Your task to perform on an android device: Go to sound settings Image 0: 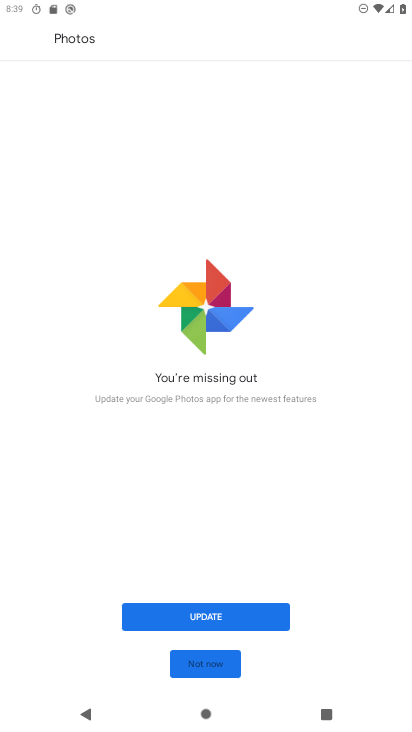
Step 0: press home button
Your task to perform on an android device: Go to sound settings Image 1: 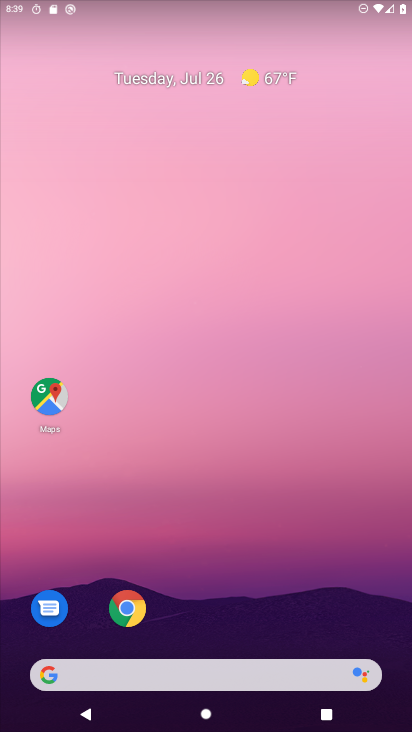
Step 1: drag from (196, 623) to (284, 116)
Your task to perform on an android device: Go to sound settings Image 2: 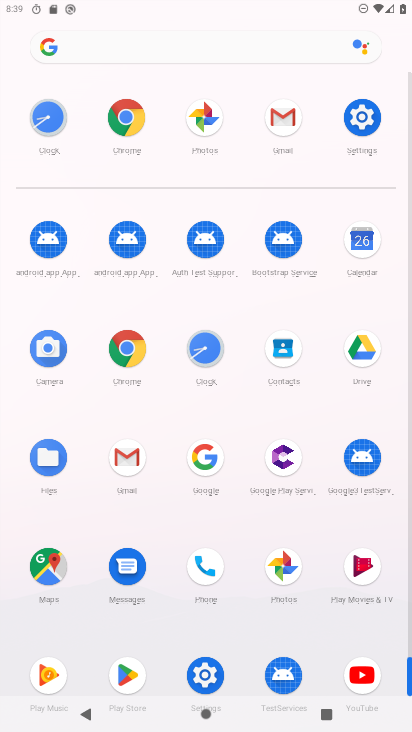
Step 2: click (207, 675)
Your task to perform on an android device: Go to sound settings Image 3: 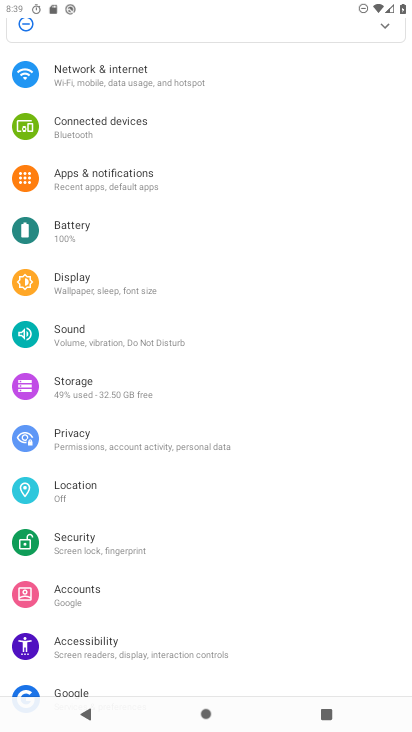
Step 3: click (134, 338)
Your task to perform on an android device: Go to sound settings Image 4: 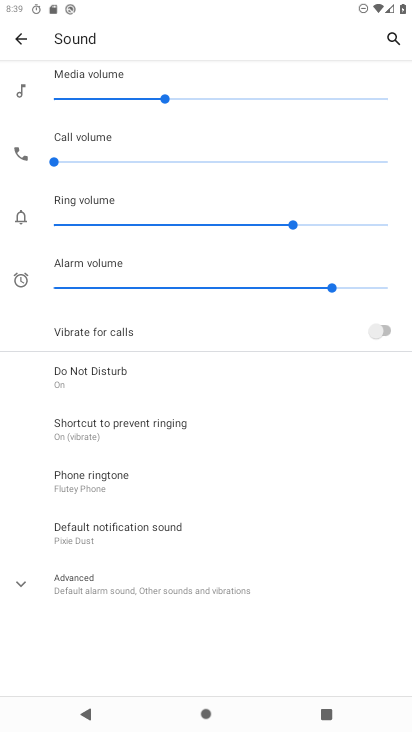
Step 4: task complete